Your task to perform on an android device: open wifi settings Image 0: 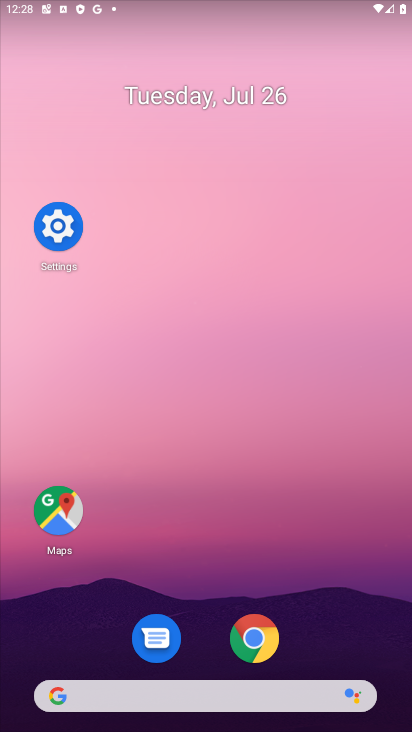
Step 0: click (83, 227)
Your task to perform on an android device: open wifi settings Image 1: 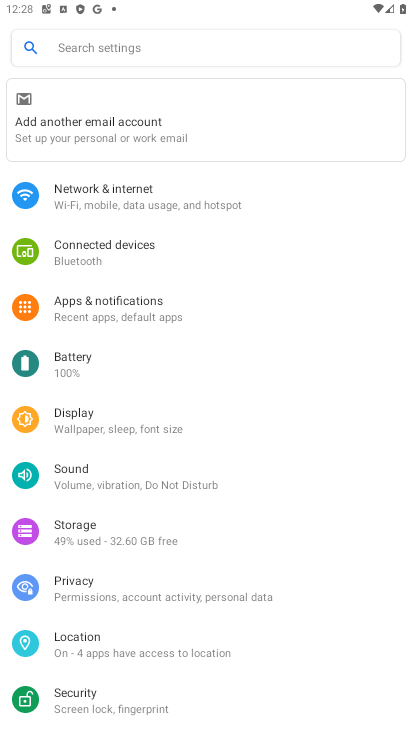
Step 1: click (147, 182)
Your task to perform on an android device: open wifi settings Image 2: 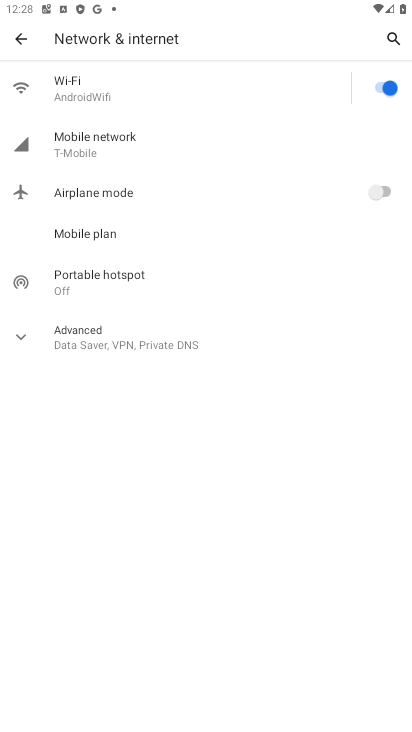
Step 2: click (206, 75)
Your task to perform on an android device: open wifi settings Image 3: 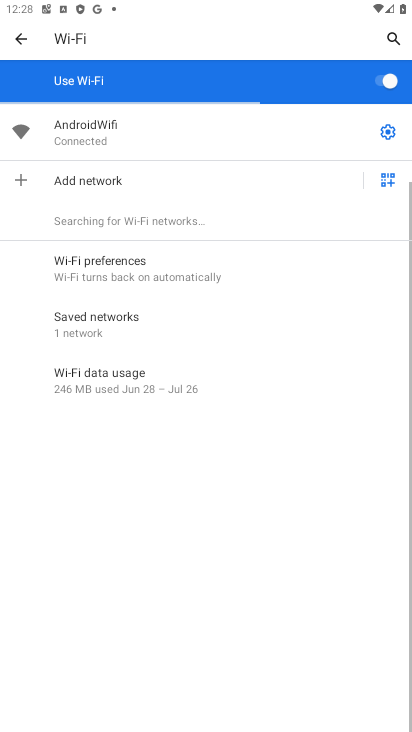
Step 3: click (383, 126)
Your task to perform on an android device: open wifi settings Image 4: 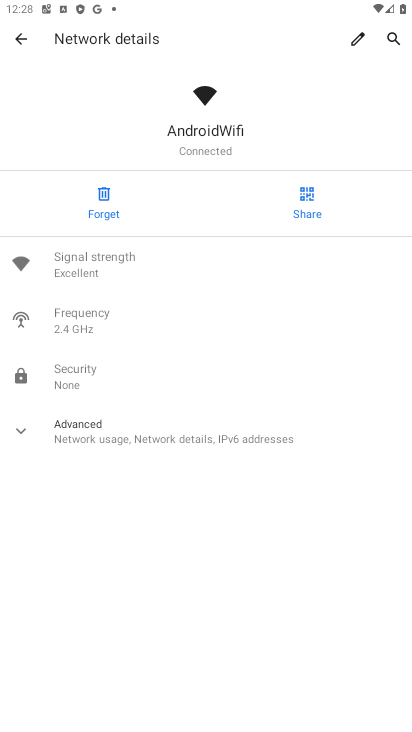
Step 4: task complete